Your task to perform on an android device: open a bookmark in the chrome app Image 0: 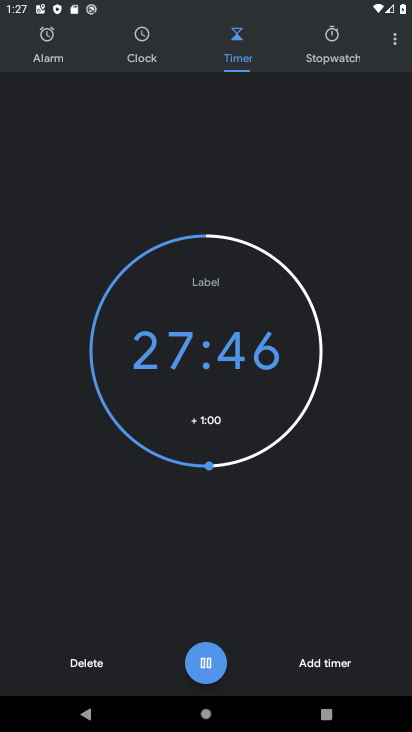
Step 0: press home button
Your task to perform on an android device: open a bookmark in the chrome app Image 1: 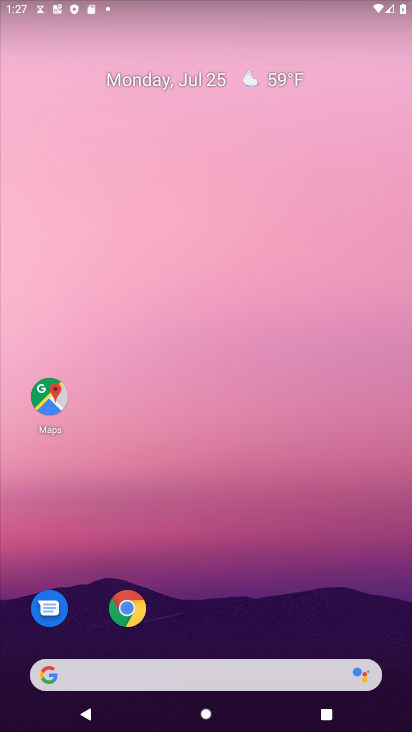
Step 1: drag from (227, 603) to (270, 163)
Your task to perform on an android device: open a bookmark in the chrome app Image 2: 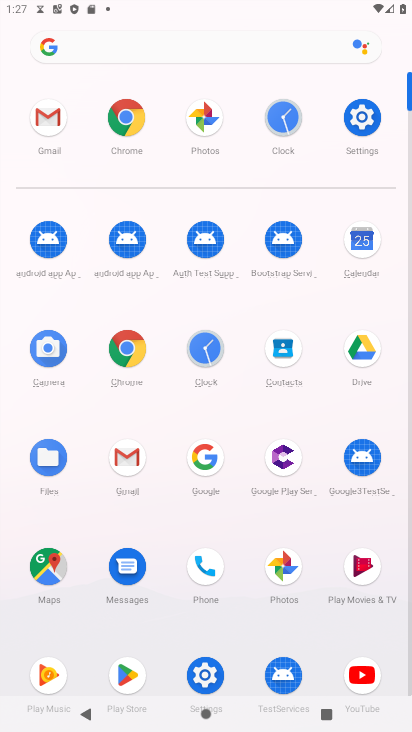
Step 2: click (132, 356)
Your task to perform on an android device: open a bookmark in the chrome app Image 3: 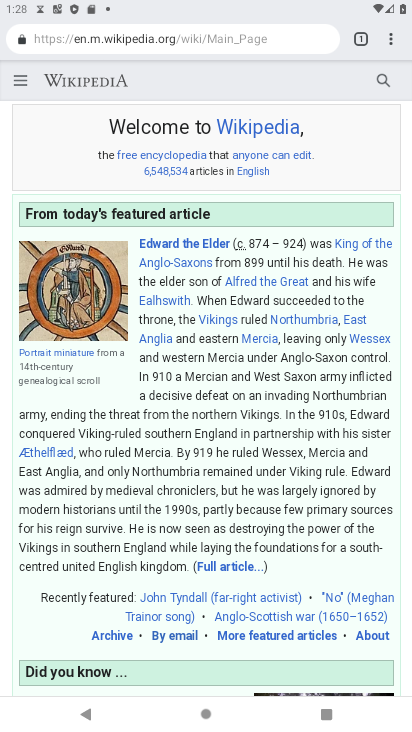
Step 3: click (384, 40)
Your task to perform on an android device: open a bookmark in the chrome app Image 4: 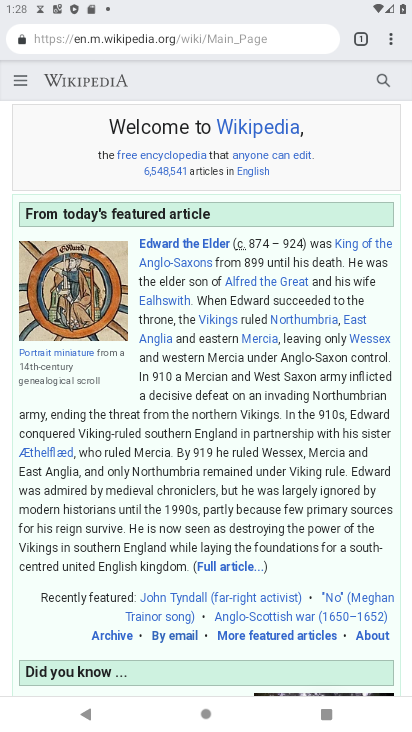
Step 4: click (386, 39)
Your task to perform on an android device: open a bookmark in the chrome app Image 5: 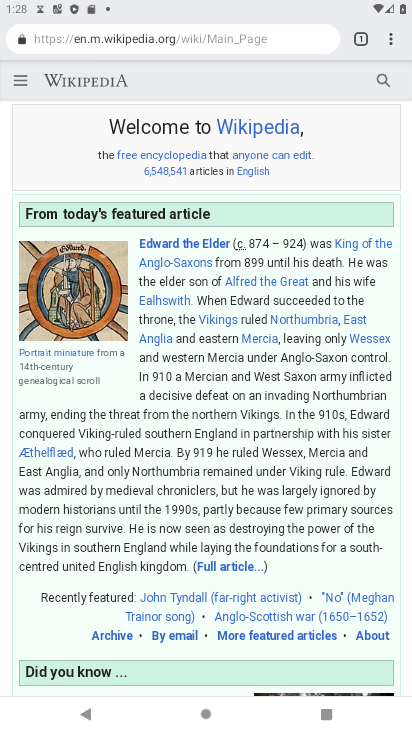
Step 5: click (390, 38)
Your task to perform on an android device: open a bookmark in the chrome app Image 6: 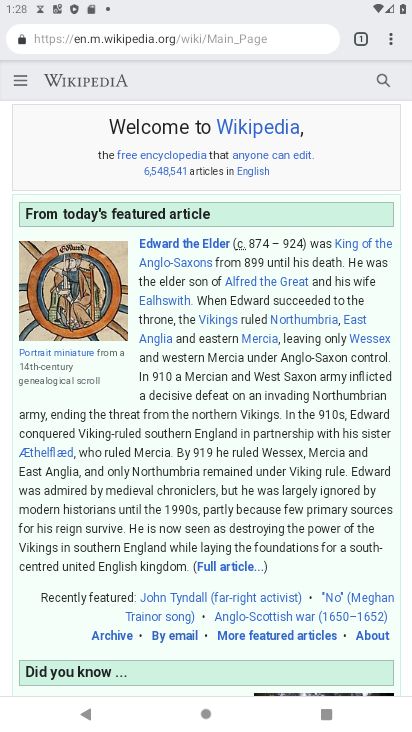
Step 6: click (389, 43)
Your task to perform on an android device: open a bookmark in the chrome app Image 7: 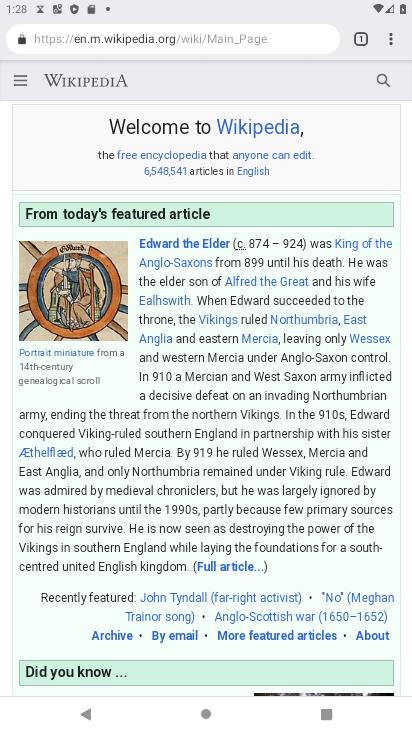
Step 7: click (387, 37)
Your task to perform on an android device: open a bookmark in the chrome app Image 8: 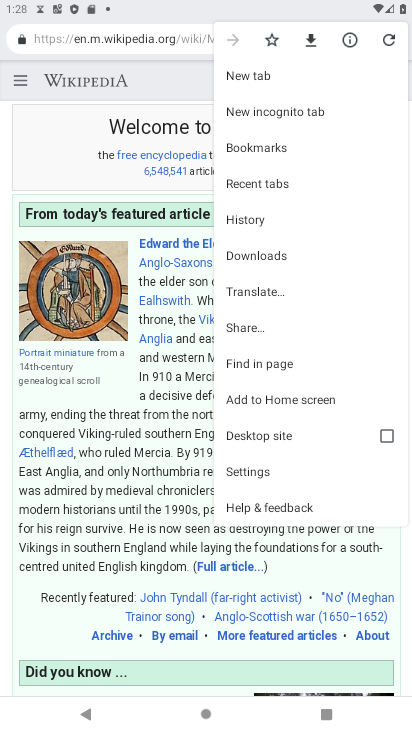
Step 8: click (278, 154)
Your task to perform on an android device: open a bookmark in the chrome app Image 9: 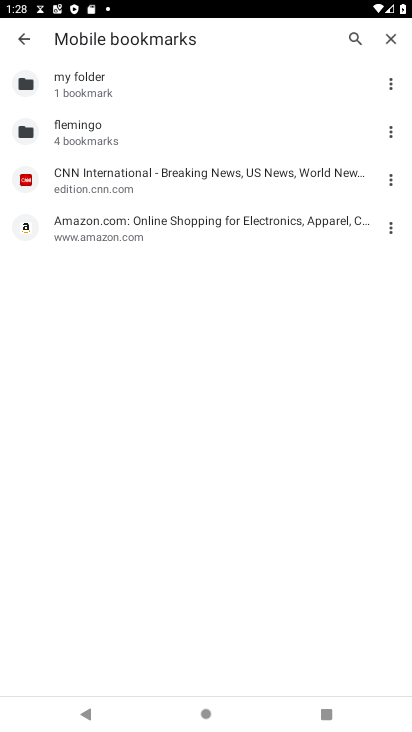
Step 9: click (176, 192)
Your task to perform on an android device: open a bookmark in the chrome app Image 10: 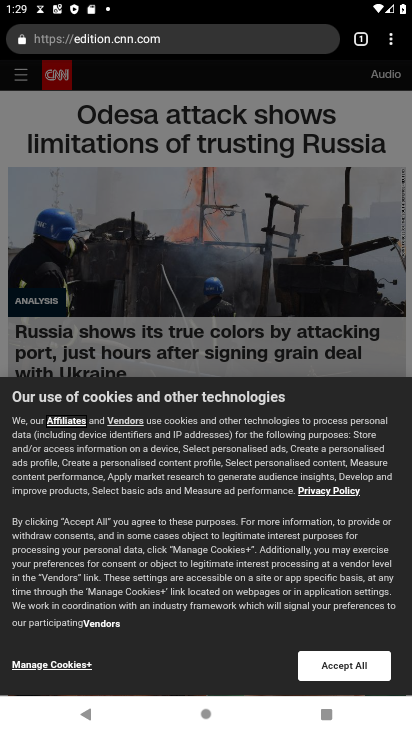
Step 10: task complete